Your task to perform on an android device: turn notification dots off Image 0: 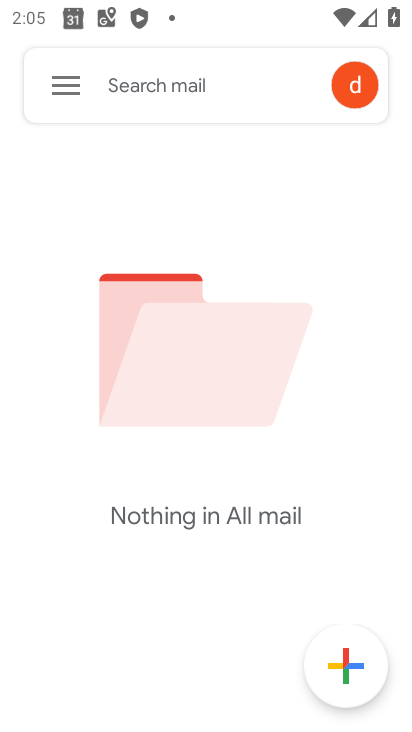
Step 0: press home button
Your task to perform on an android device: turn notification dots off Image 1: 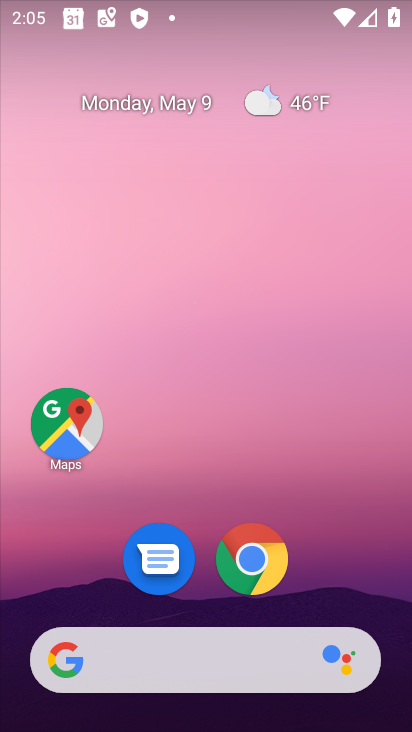
Step 1: drag from (358, 538) to (306, 131)
Your task to perform on an android device: turn notification dots off Image 2: 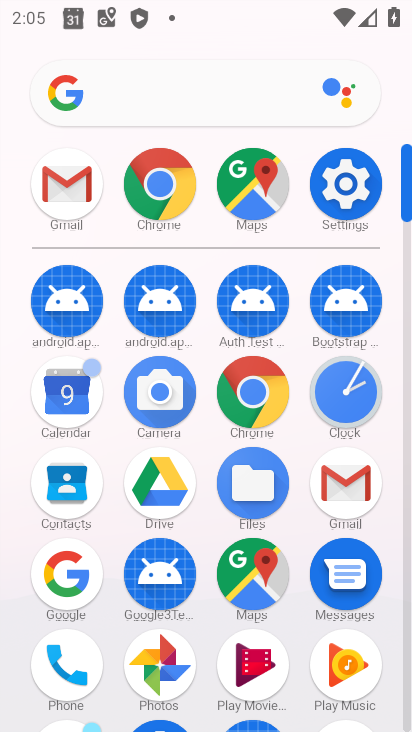
Step 2: click (332, 203)
Your task to perform on an android device: turn notification dots off Image 3: 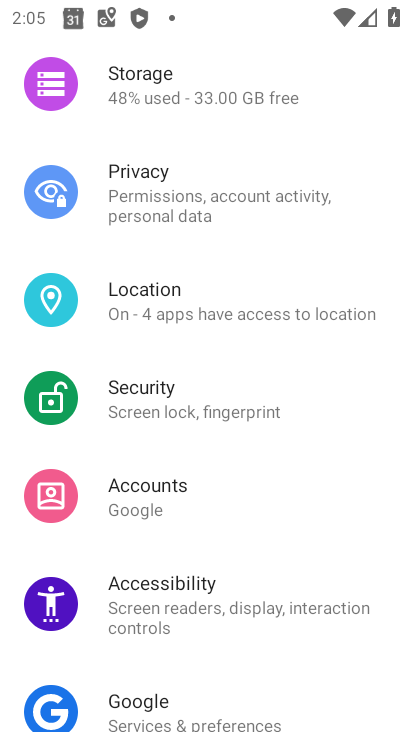
Step 3: drag from (311, 537) to (317, 261)
Your task to perform on an android device: turn notification dots off Image 4: 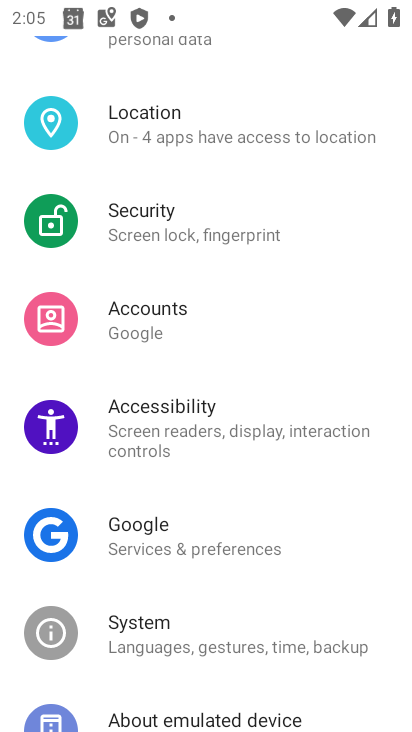
Step 4: drag from (266, 188) to (331, 564)
Your task to perform on an android device: turn notification dots off Image 5: 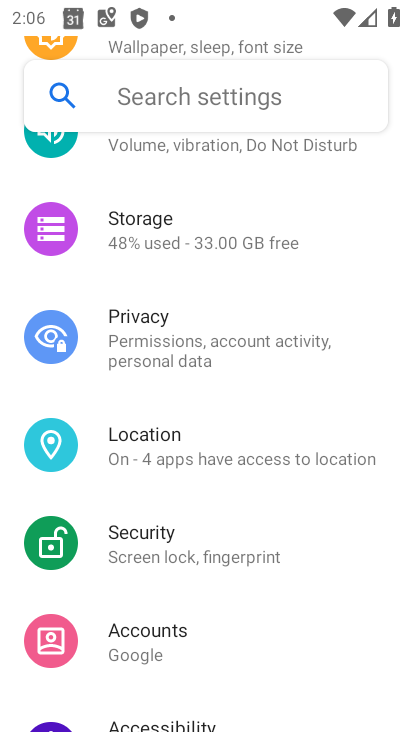
Step 5: drag from (278, 255) to (261, 552)
Your task to perform on an android device: turn notification dots off Image 6: 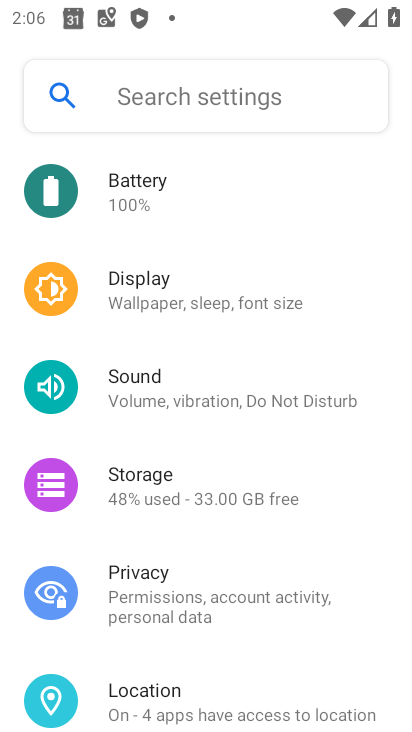
Step 6: drag from (259, 283) to (296, 513)
Your task to perform on an android device: turn notification dots off Image 7: 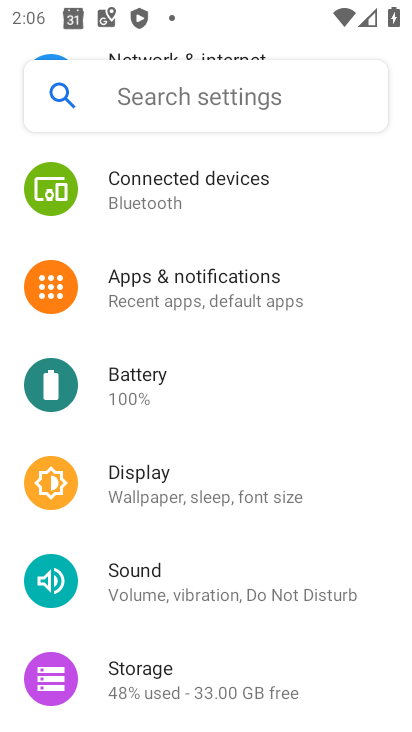
Step 7: click (218, 285)
Your task to perform on an android device: turn notification dots off Image 8: 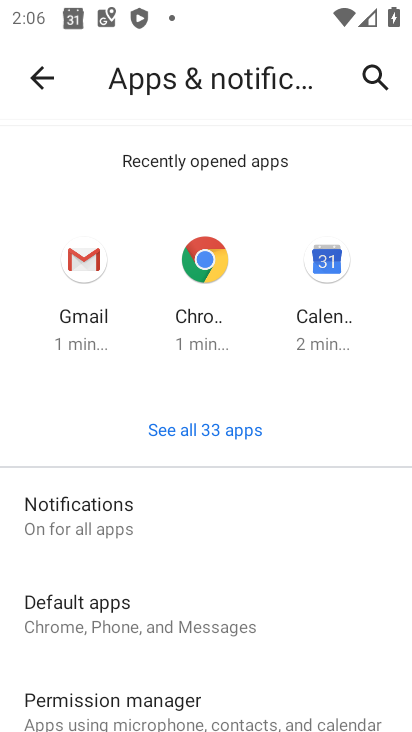
Step 8: click (156, 533)
Your task to perform on an android device: turn notification dots off Image 9: 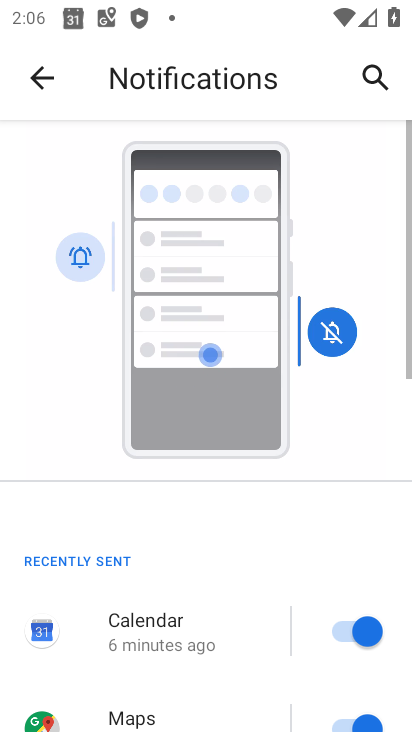
Step 9: drag from (205, 692) to (222, 333)
Your task to perform on an android device: turn notification dots off Image 10: 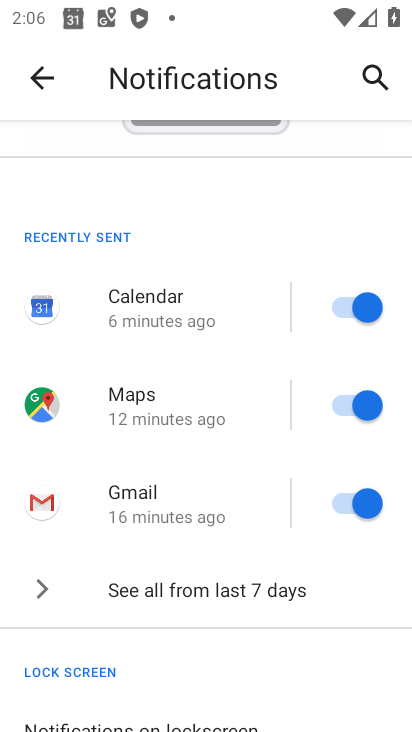
Step 10: drag from (241, 668) to (255, 309)
Your task to perform on an android device: turn notification dots off Image 11: 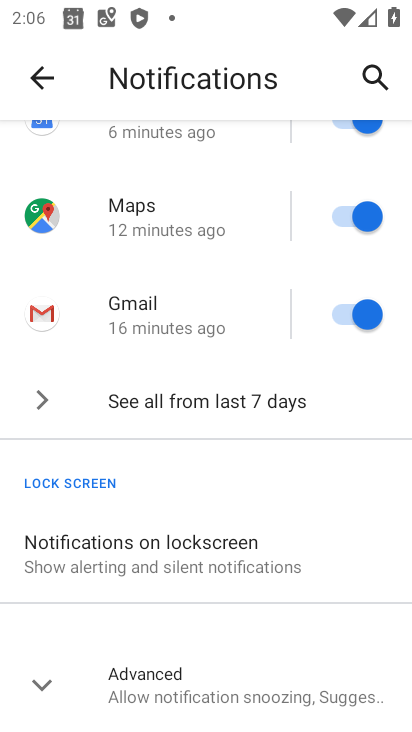
Step 11: click (247, 662)
Your task to perform on an android device: turn notification dots off Image 12: 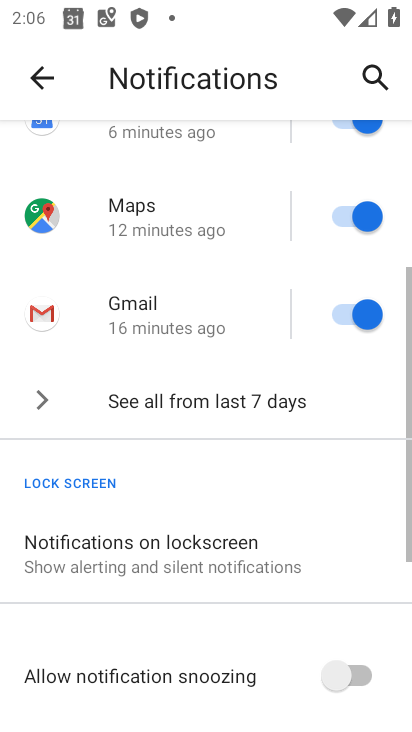
Step 12: drag from (255, 698) to (213, 380)
Your task to perform on an android device: turn notification dots off Image 13: 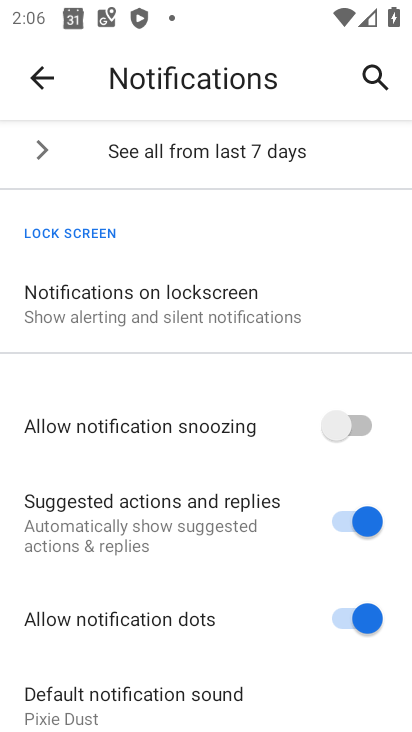
Step 13: click (337, 622)
Your task to perform on an android device: turn notification dots off Image 14: 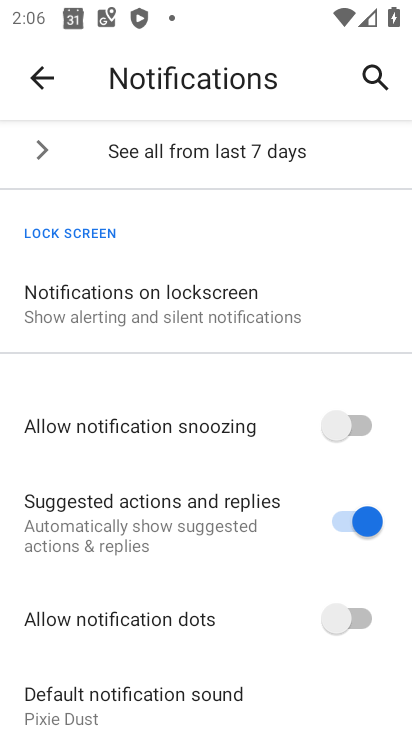
Step 14: task complete